Your task to perform on an android device: Open settings Image 0: 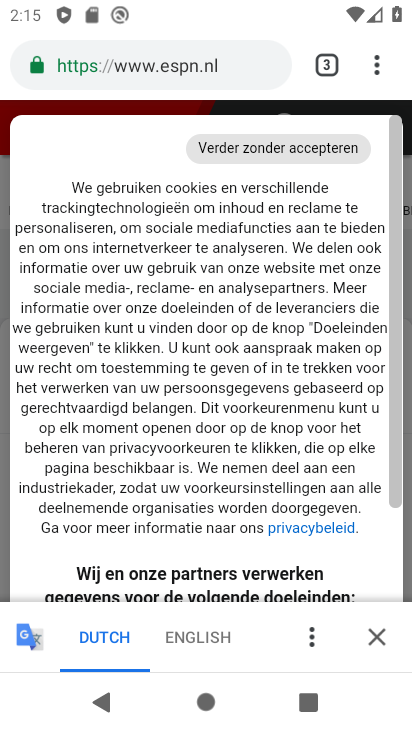
Step 0: press back button
Your task to perform on an android device: Open settings Image 1: 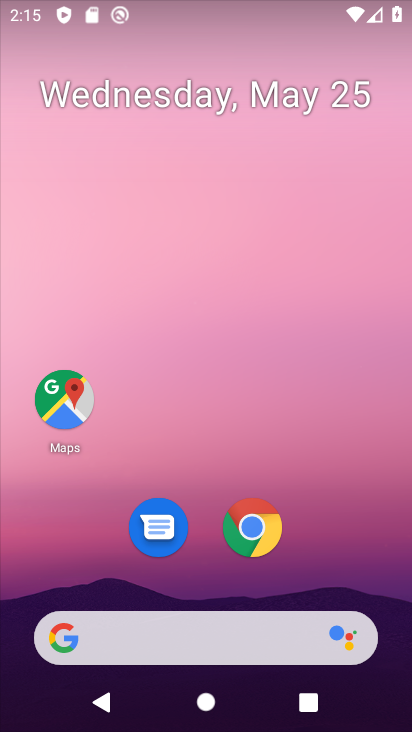
Step 1: drag from (201, 590) to (278, 59)
Your task to perform on an android device: Open settings Image 2: 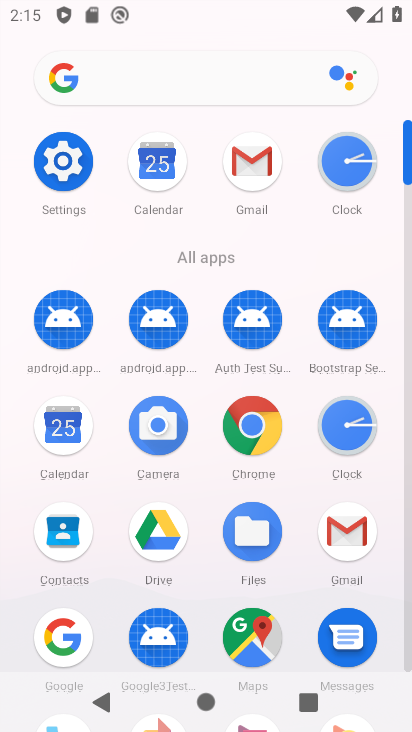
Step 2: click (67, 159)
Your task to perform on an android device: Open settings Image 3: 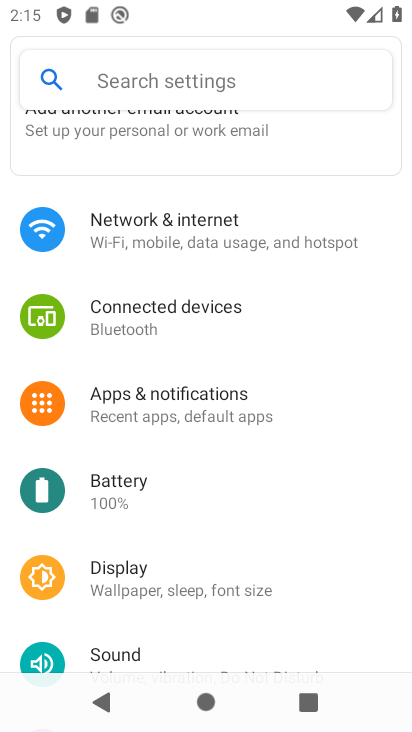
Step 3: task complete